Your task to perform on an android device: What is the news today? Image 0: 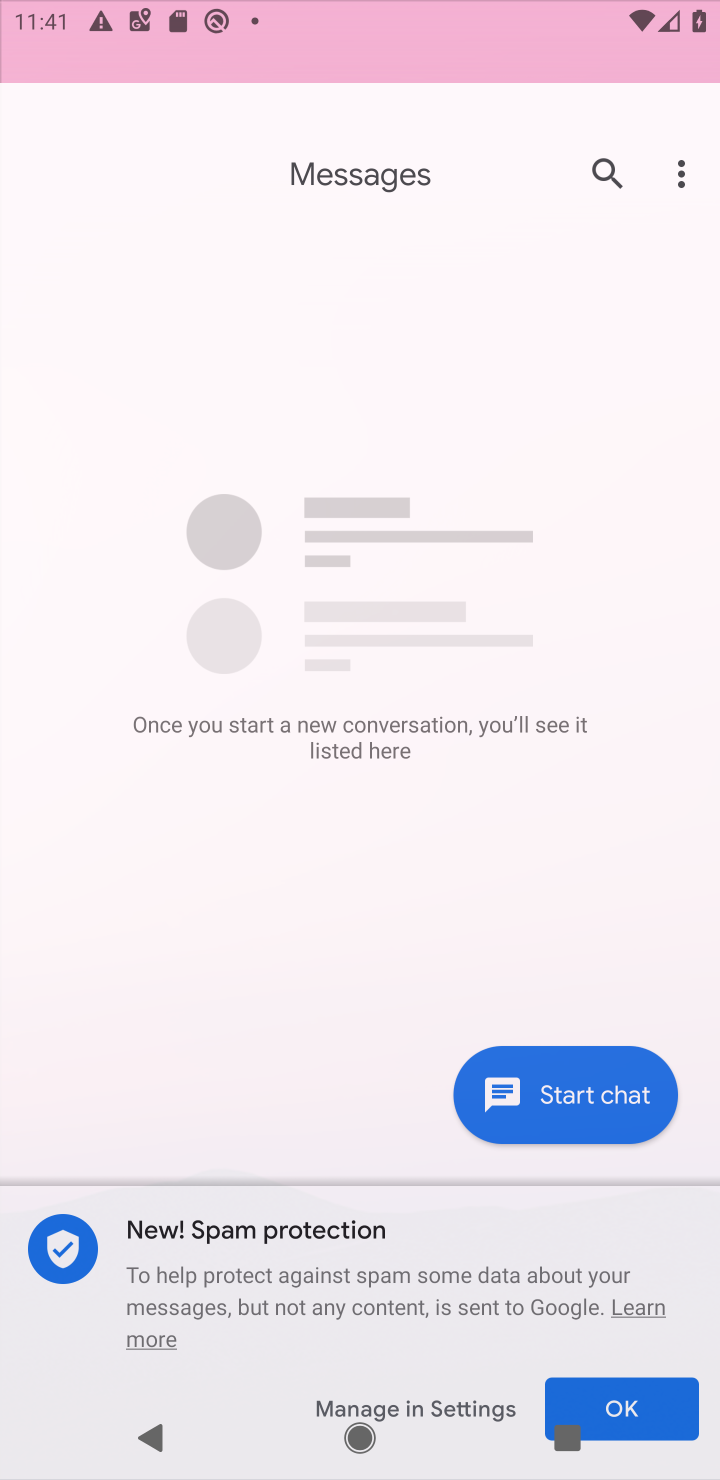
Step 0: press home button
Your task to perform on an android device: What is the news today? Image 1: 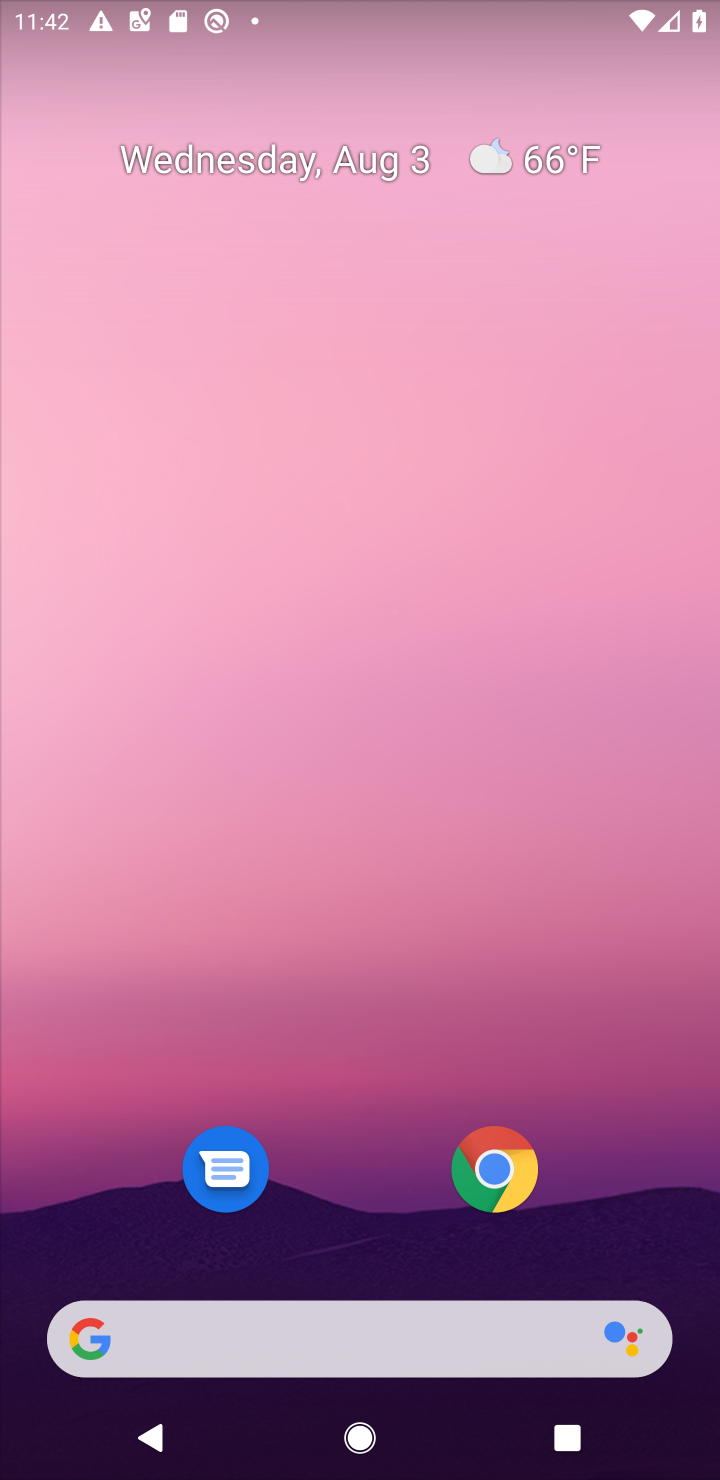
Step 1: click (283, 1316)
Your task to perform on an android device: What is the news today? Image 2: 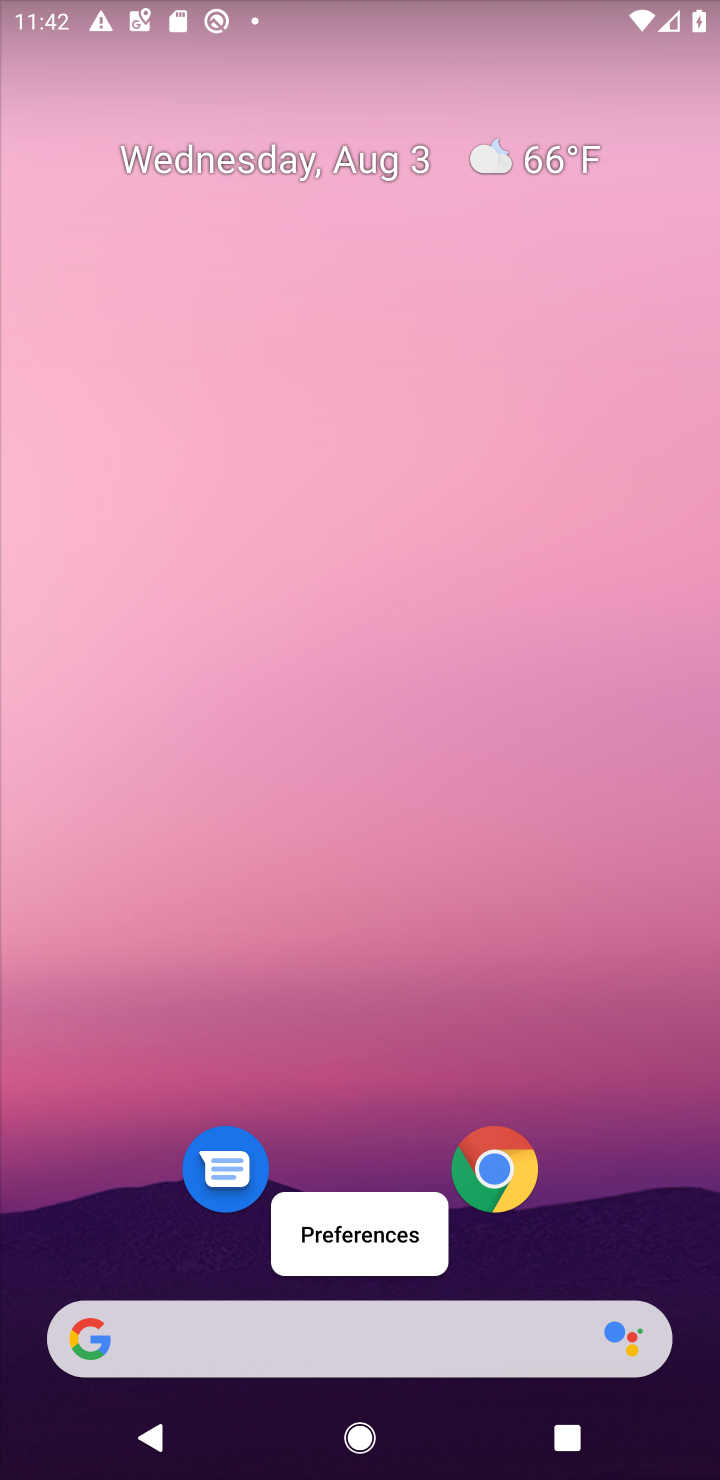
Step 2: click (309, 1343)
Your task to perform on an android device: What is the news today? Image 3: 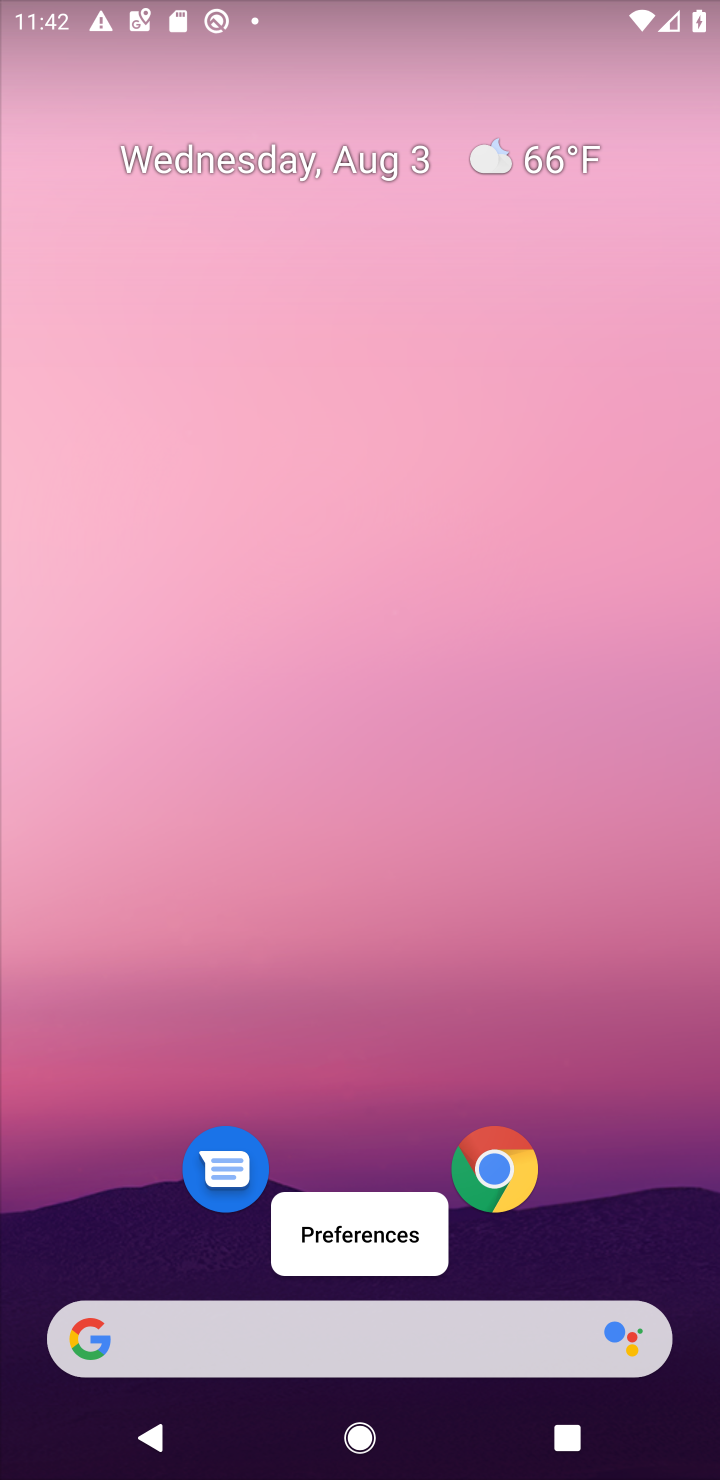
Step 3: click (309, 1343)
Your task to perform on an android device: What is the news today? Image 4: 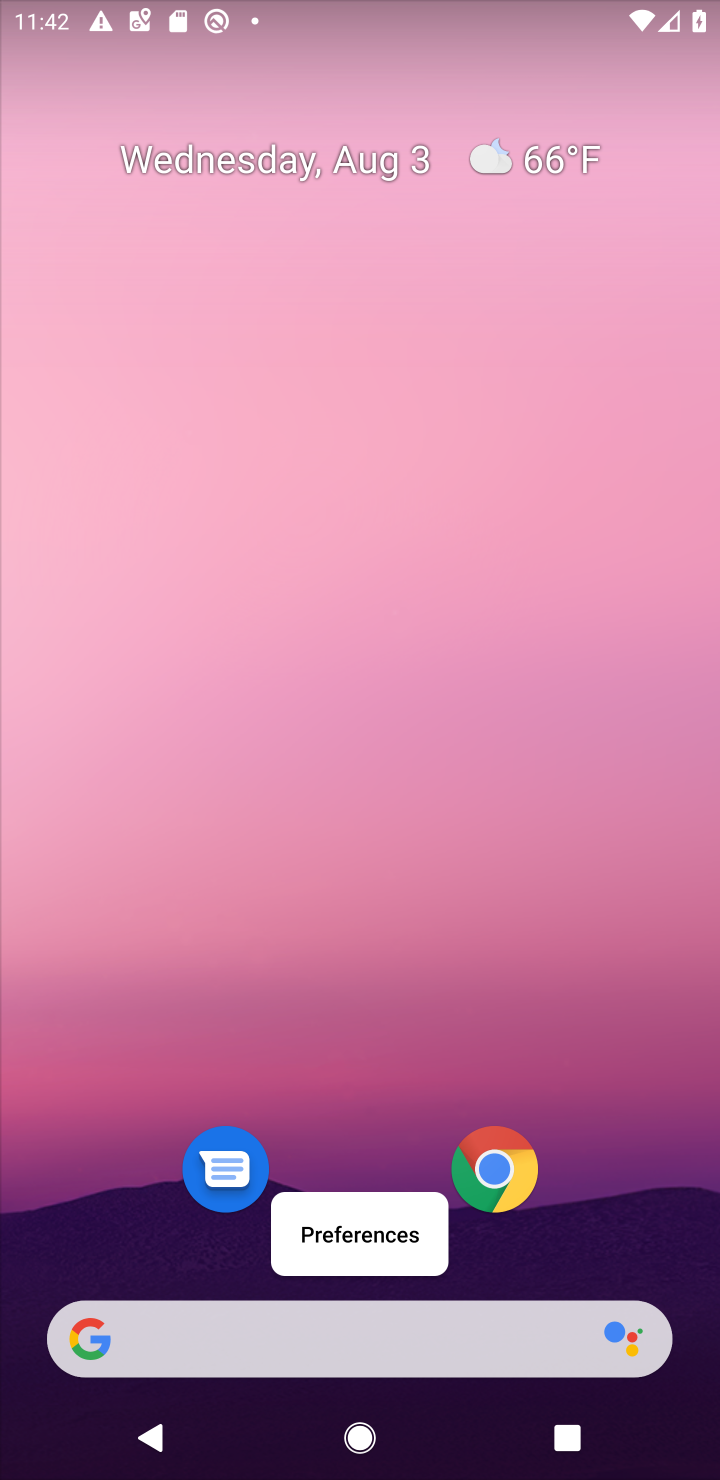
Step 4: click (257, 1341)
Your task to perform on an android device: What is the news today? Image 5: 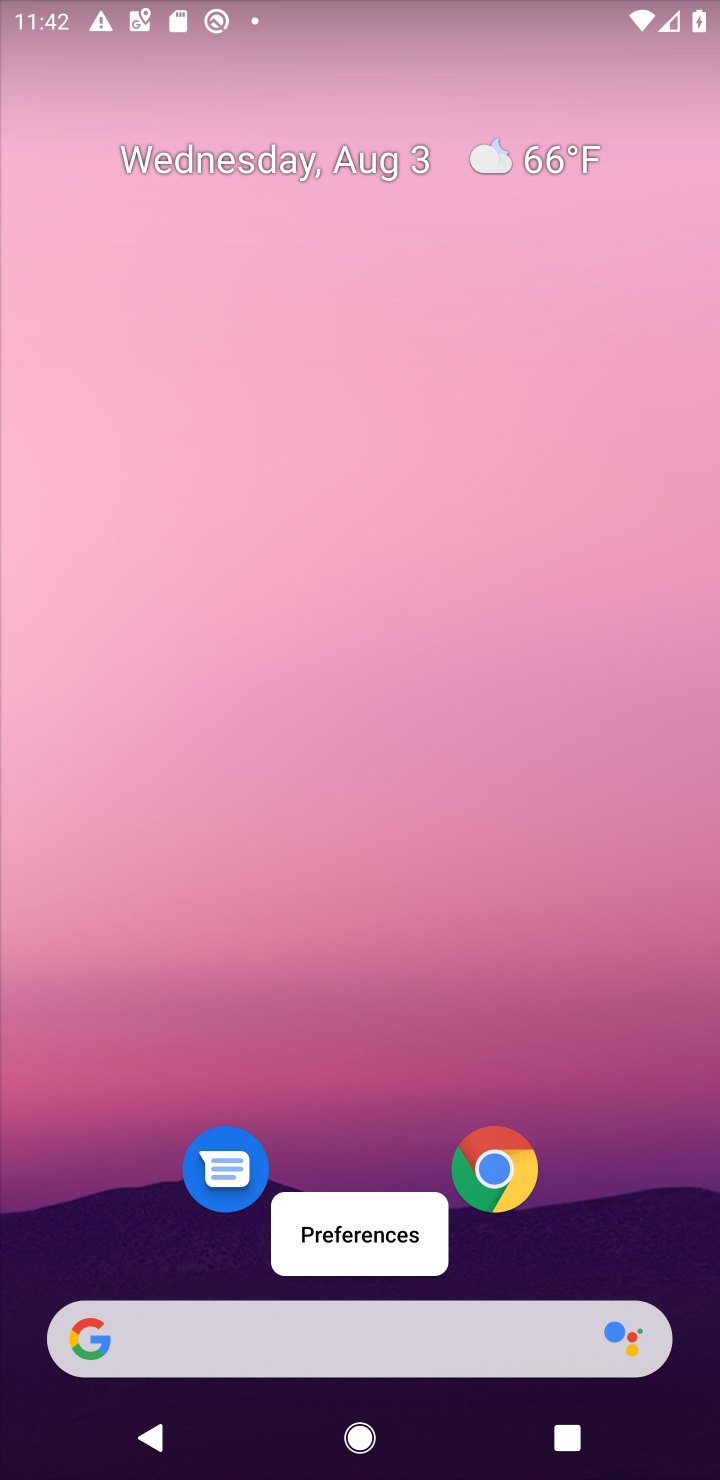
Step 5: click (257, 1341)
Your task to perform on an android device: What is the news today? Image 6: 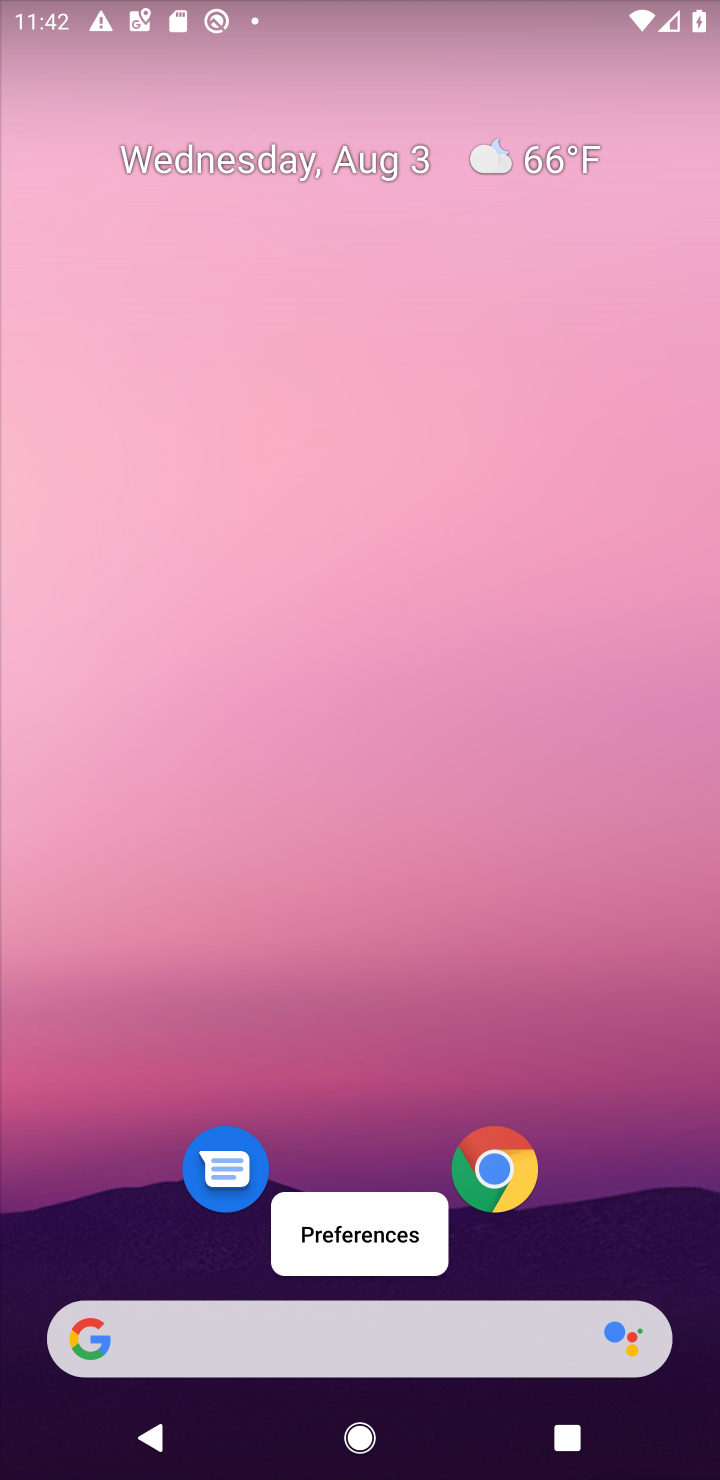
Step 6: click (326, 1343)
Your task to perform on an android device: What is the news today? Image 7: 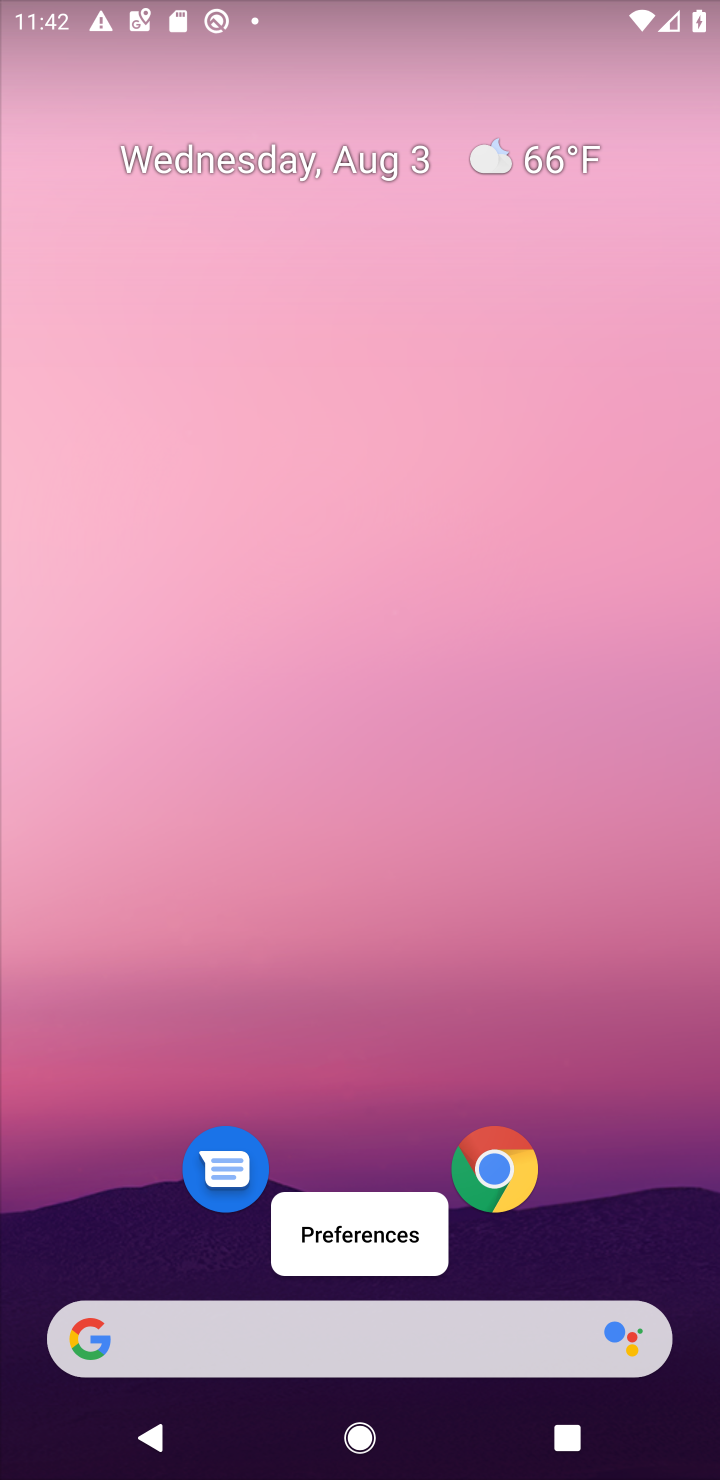
Step 7: click (148, 1339)
Your task to perform on an android device: What is the news today? Image 8: 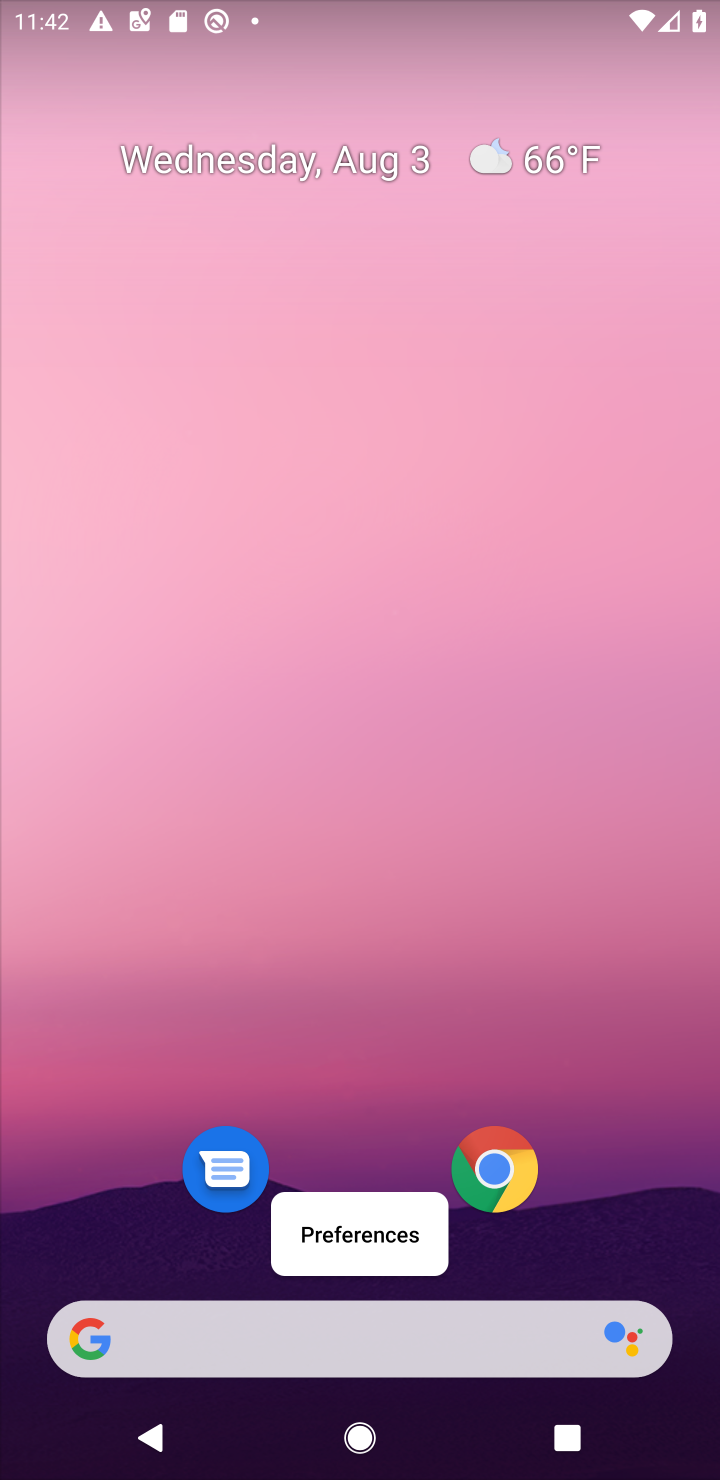
Step 8: click (148, 1339)
Your task to perform on an android device: What is the news today? Image 9: 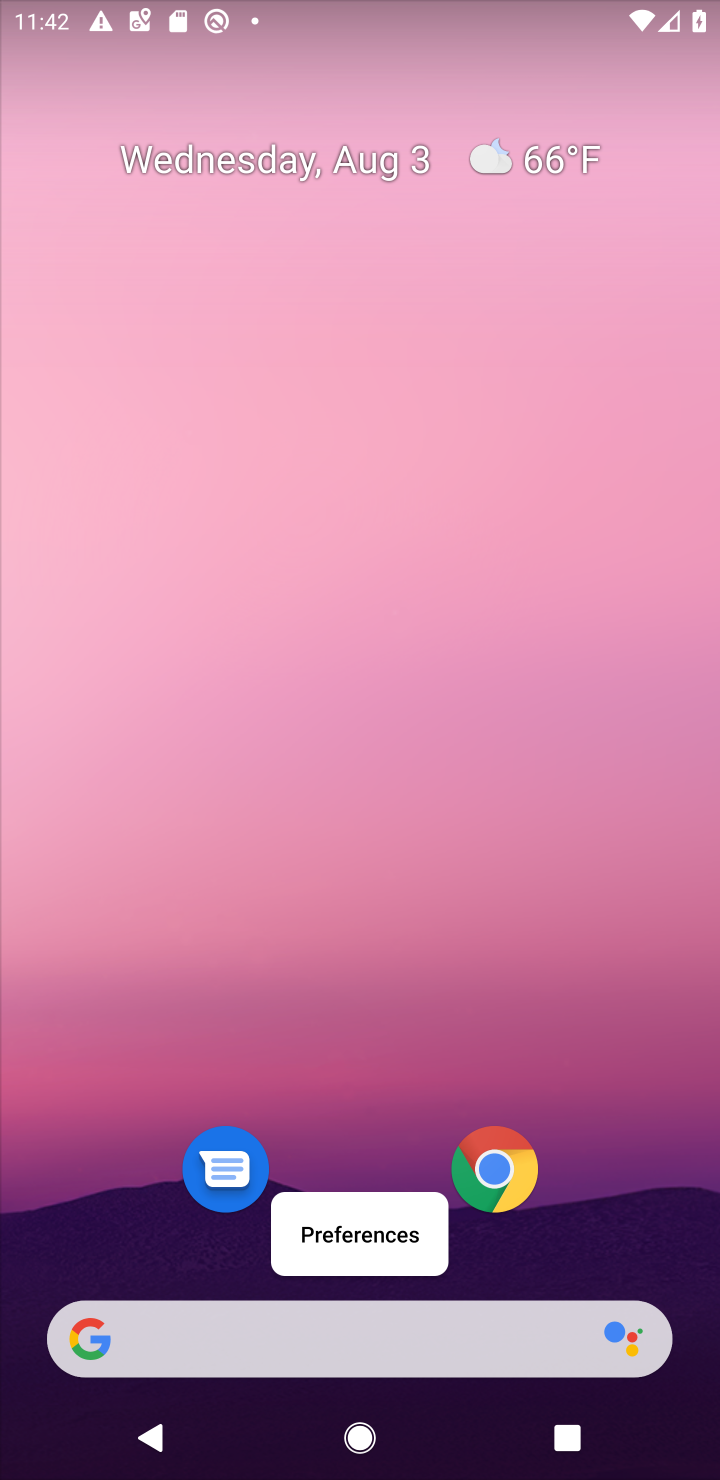
Step 9: click (147, 1339)
Your task to perform on an android device: What is the news today? Image 10: 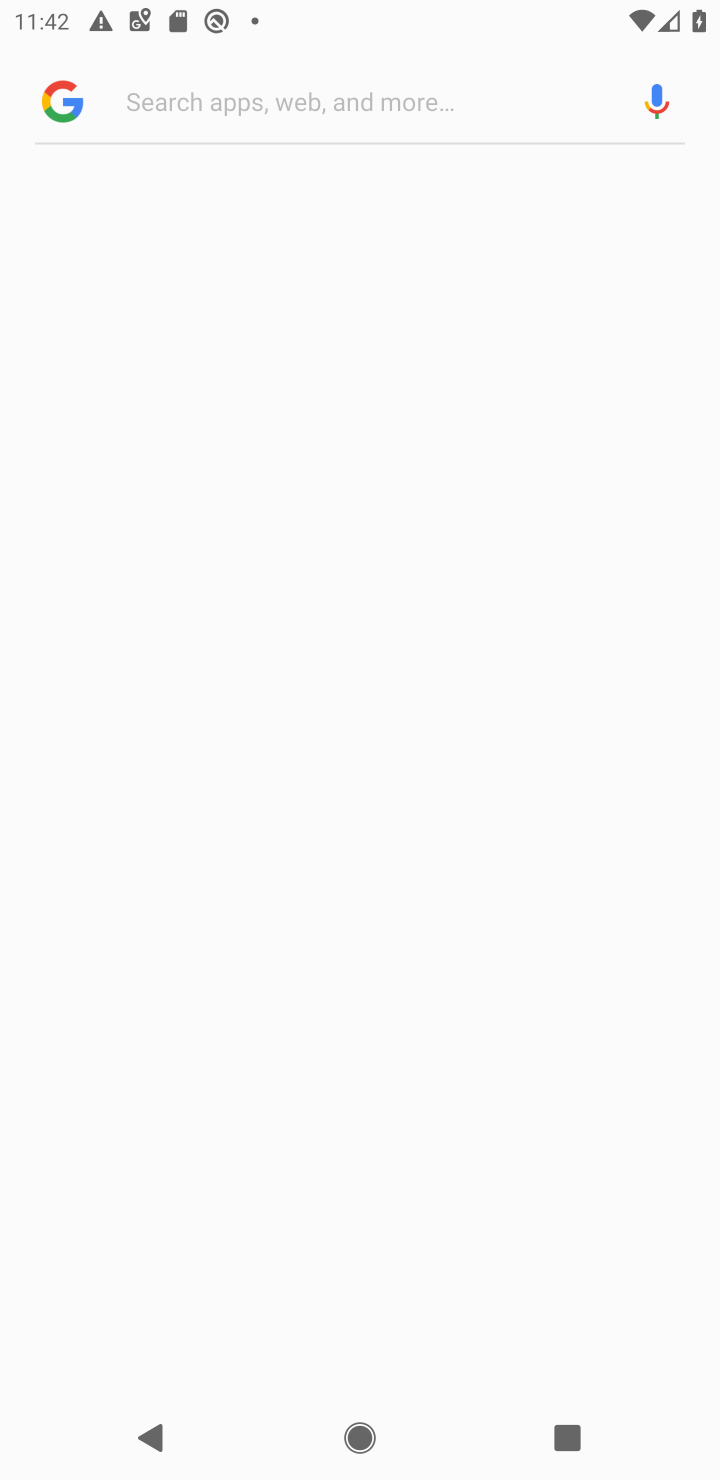
Step 10: click (205, 1335)
Your task to perform on an android device: What is the news today? Image 11: 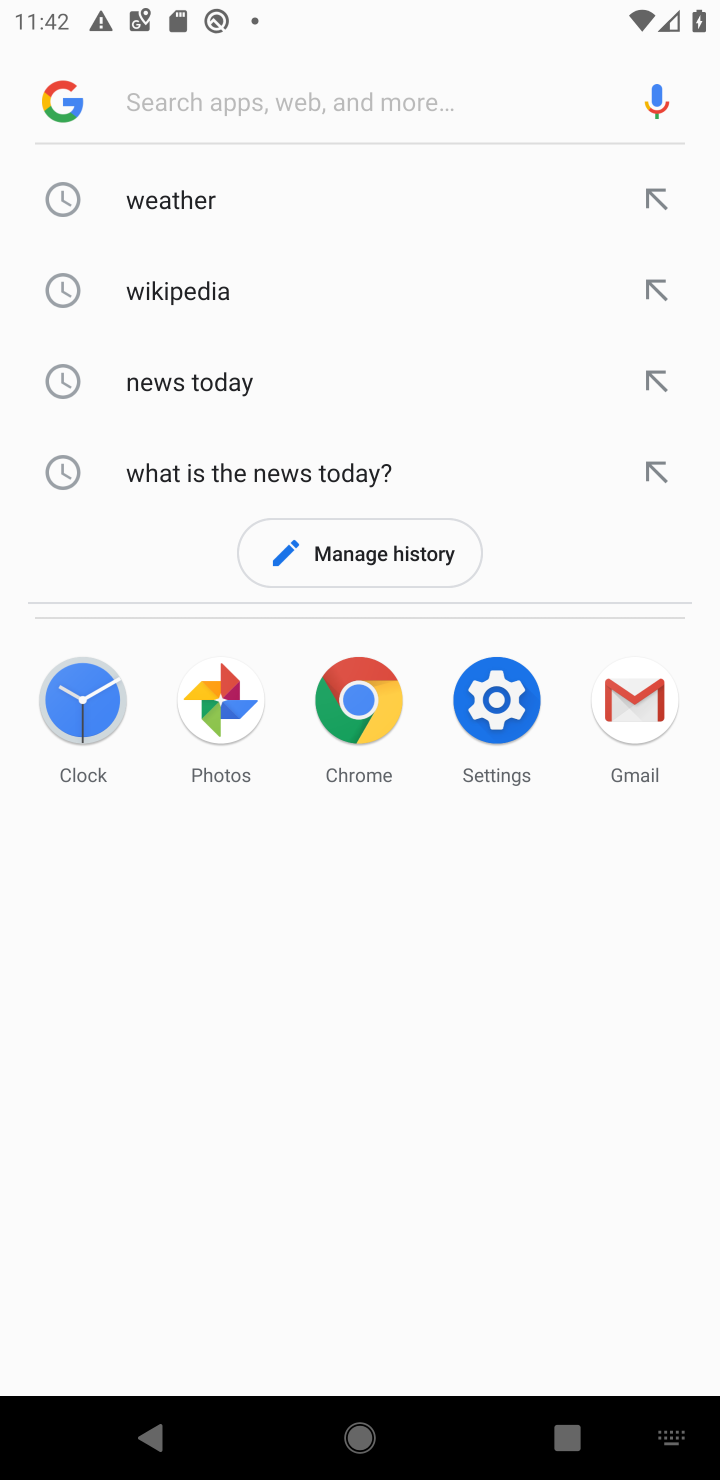
Step 11: click (200, 405)
Your task to perform on an android device: What is the news today? Image 12: 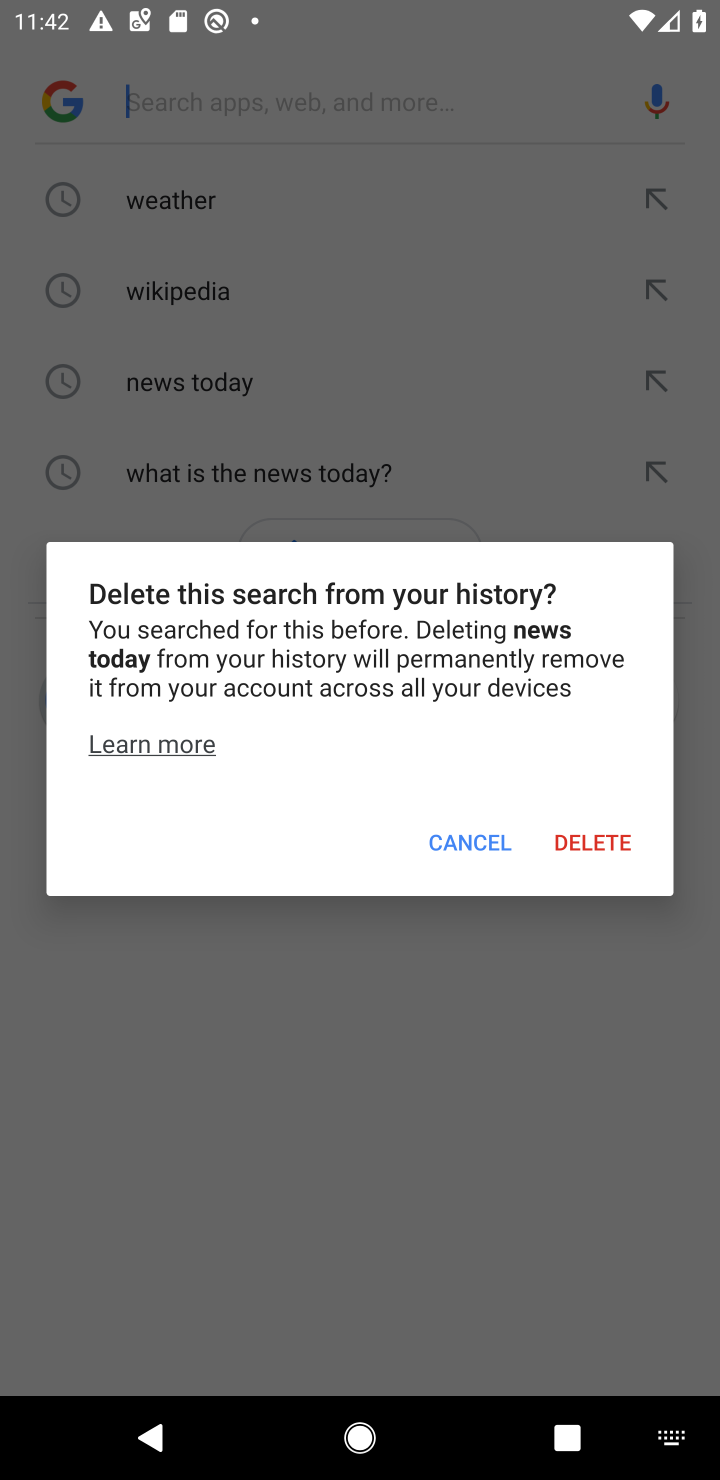
Step 12: click (493, 839)
Your task to perform on an android device: What is the news today? Image 13: 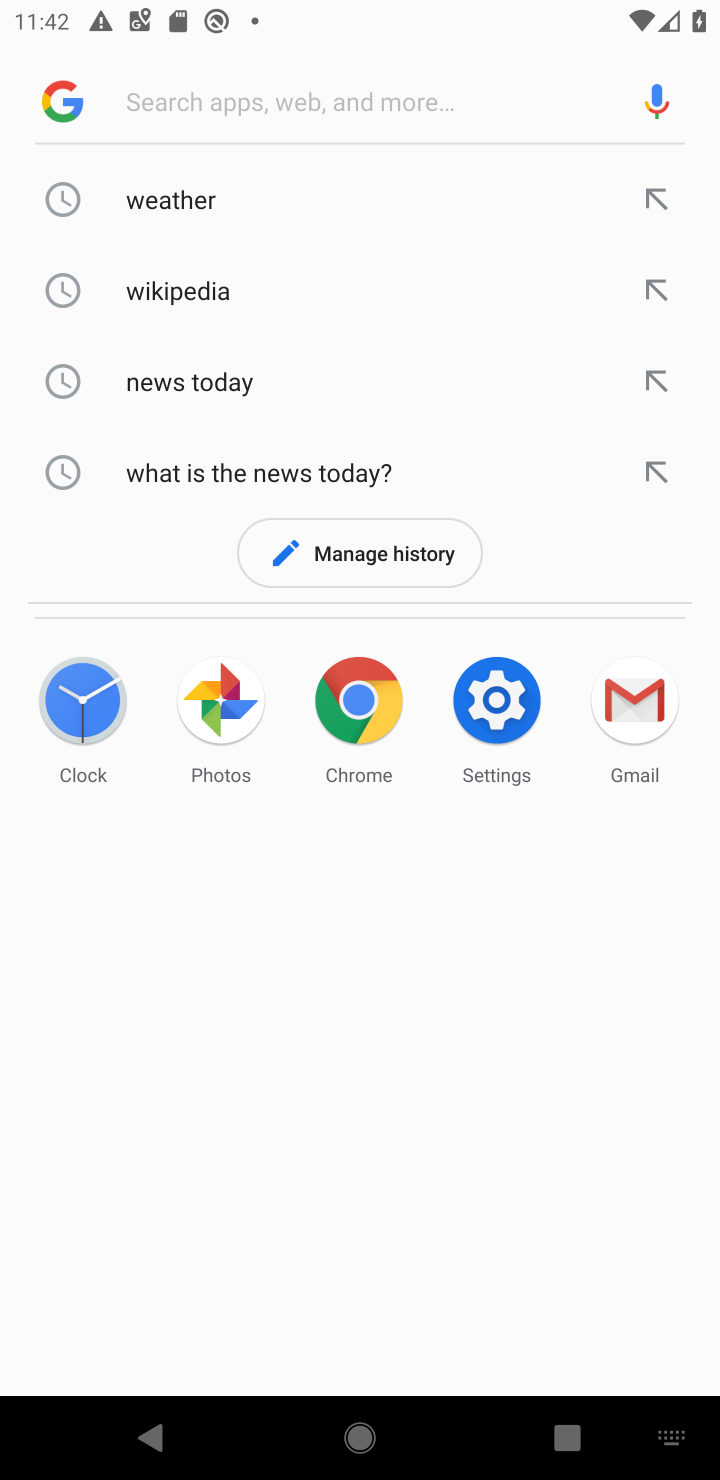
Step 13: click (150, 396)
Your task to perform on an android device: What is the news today? Image 14: 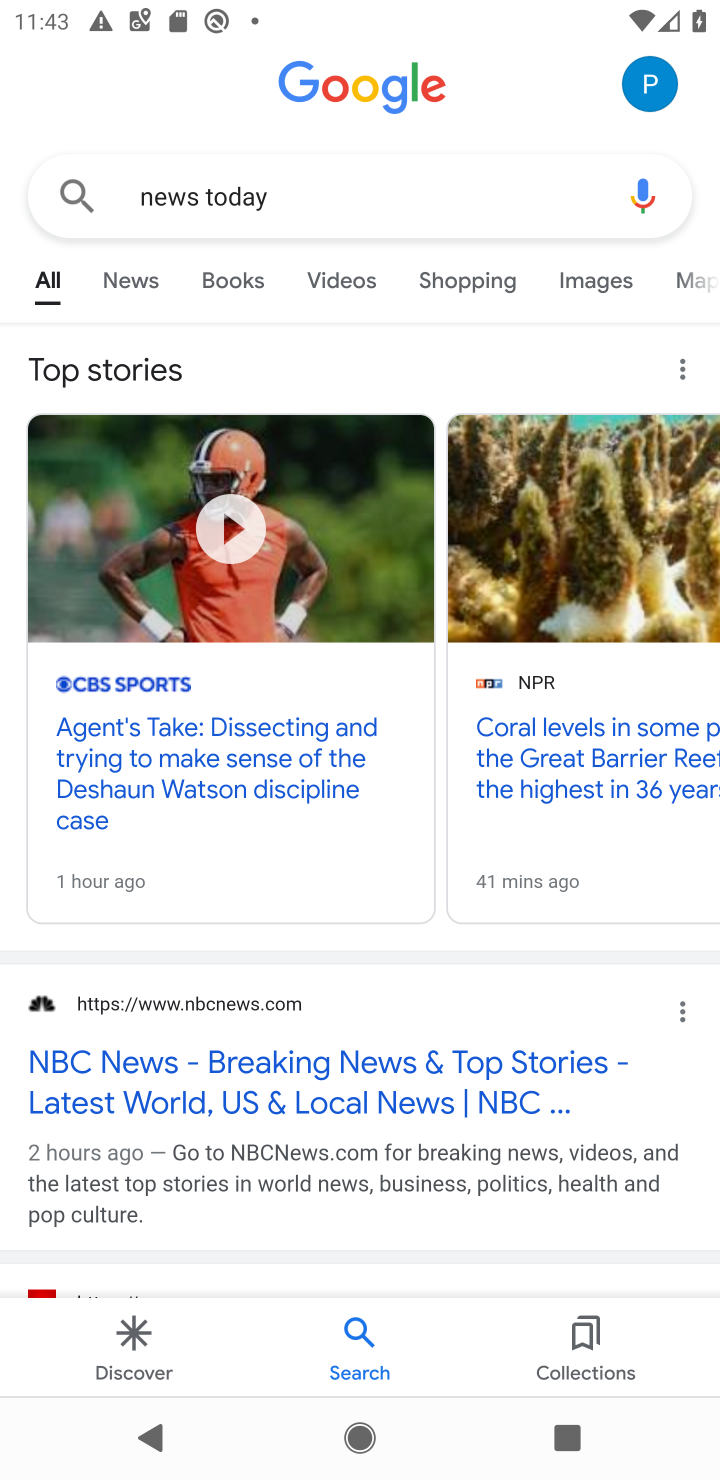
Step 14: click (203, 1086)
Your task to perform on an android device: What is the news today? Image 15: 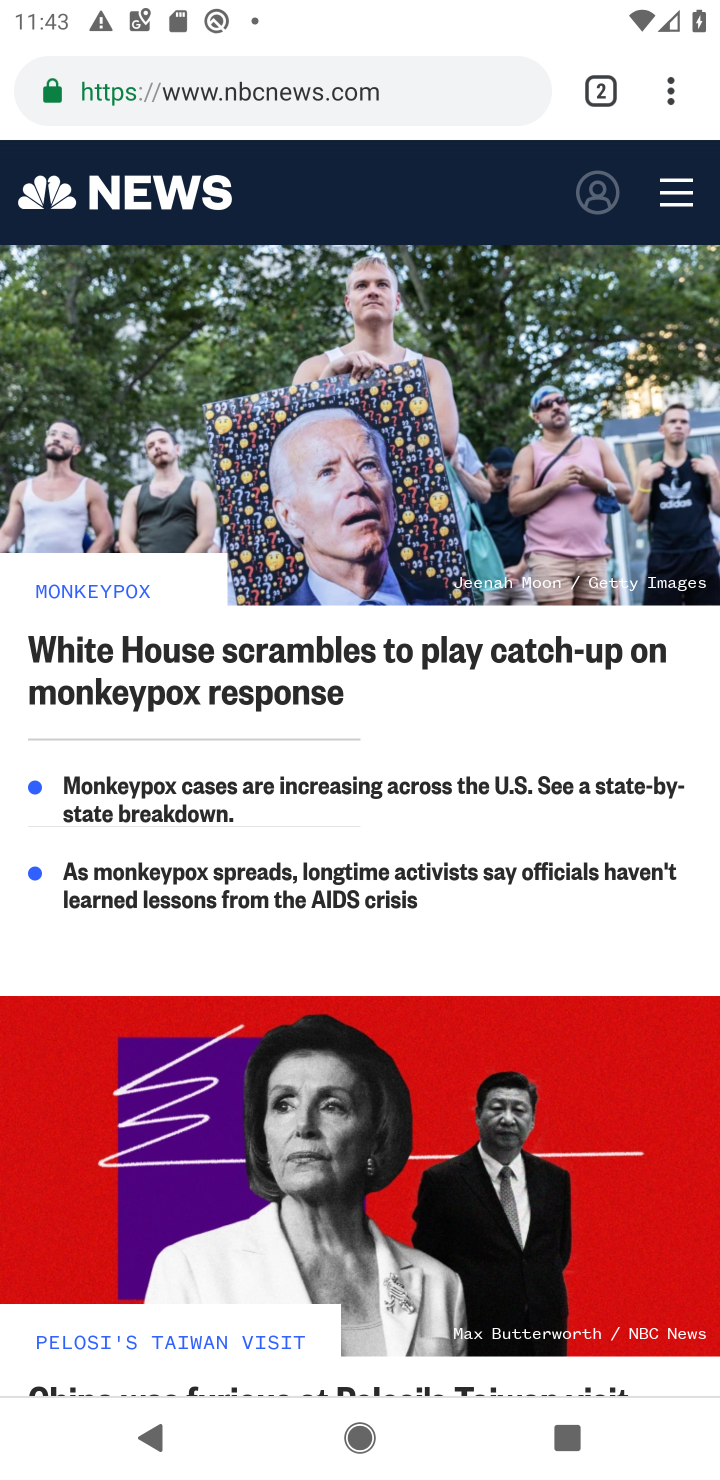
Step 15: task complete